Your task to perform on an android device: check battery use Image 0: 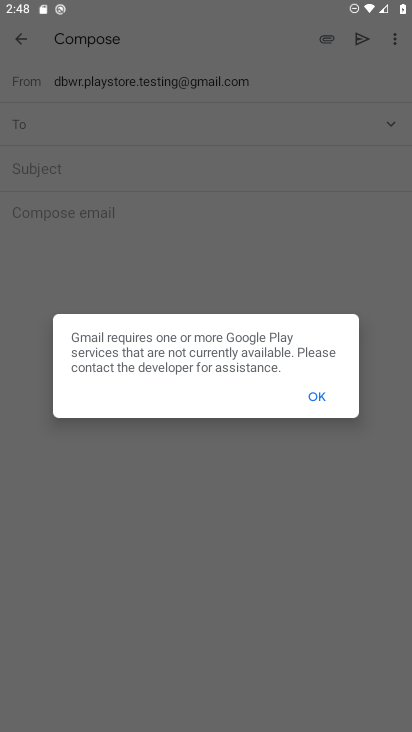
Step 0: press home button
Your task to perform on an android device: check battery use Image 1: 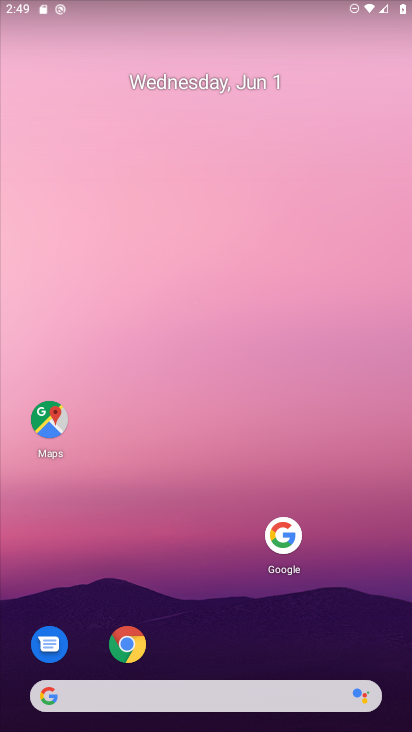
Step 1: drag from (276, 694) to (357, 243)
Your task to perform on an android device: check battery use Image 2: 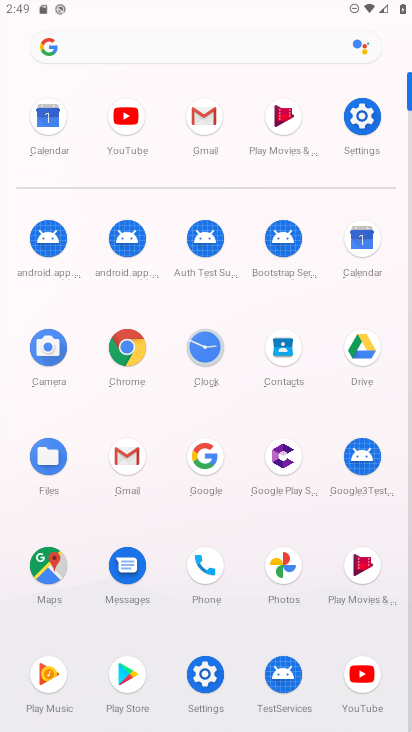
Step 2: click (356, 126)
Your task to perform on an android device: check battery use Image 3: 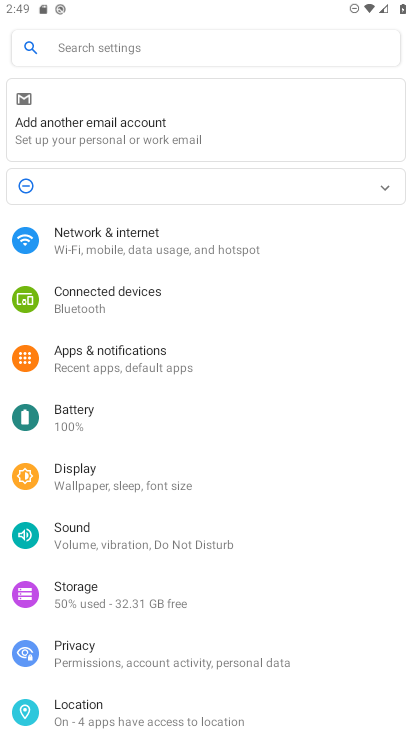
Step 3: click (63, 415)
Your task to perform on an android device: check battery use Image 4: 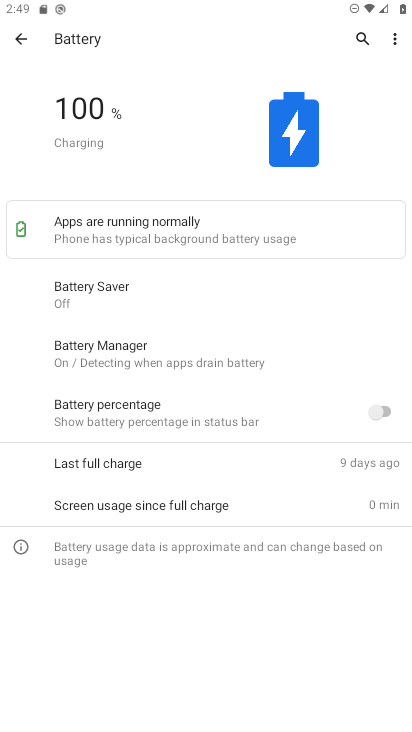
Step 4: click (390, 48)
Your task to perform on an android device: check battery use Image 5: 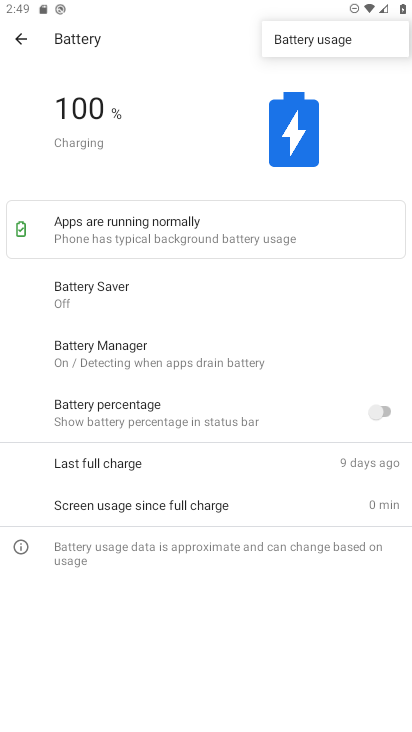
Step 5: click (320, 36)
Your task to perform on an android device: check battery use Image 6: 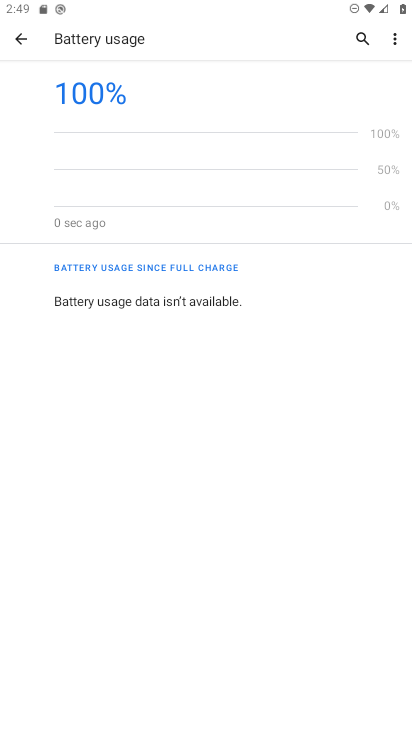
Step 6: task complete